Your task to perform on an android device: turn off location history Image 0: 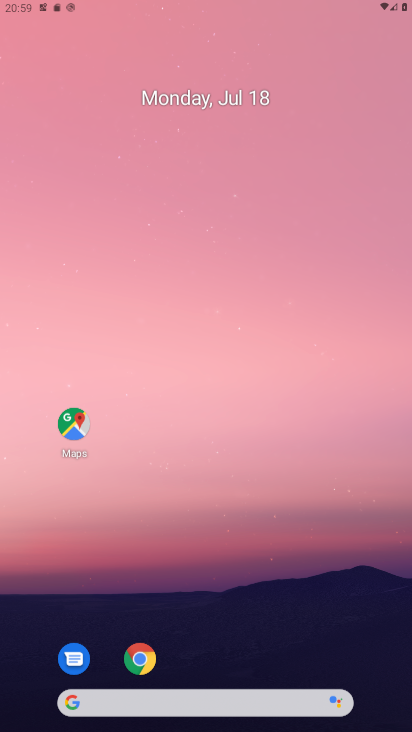
Step 0: drag from (218, 102) to (260, 229)
Your task to perform on an android device: turn off location history Image 1: 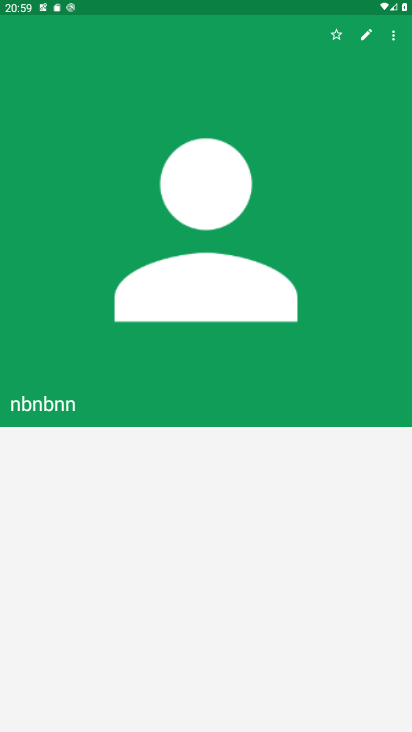
Step 1: drag from (174, 695) to (123, 265)
Your task to perform on an android device: turn off location history Image 2: 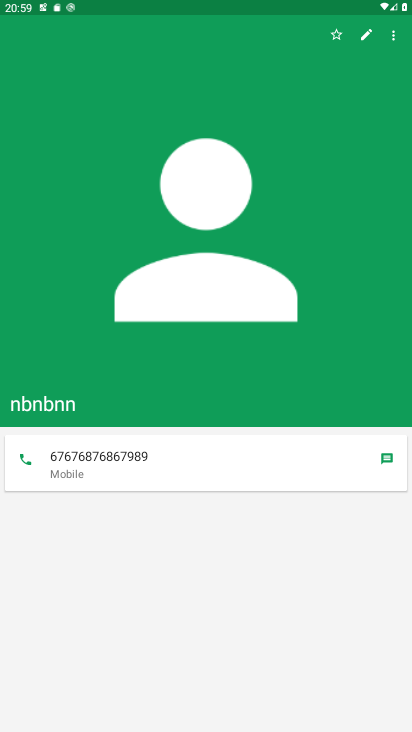
Step 2: press back button
Your task to perform on an android device: turn off location history Image 3: 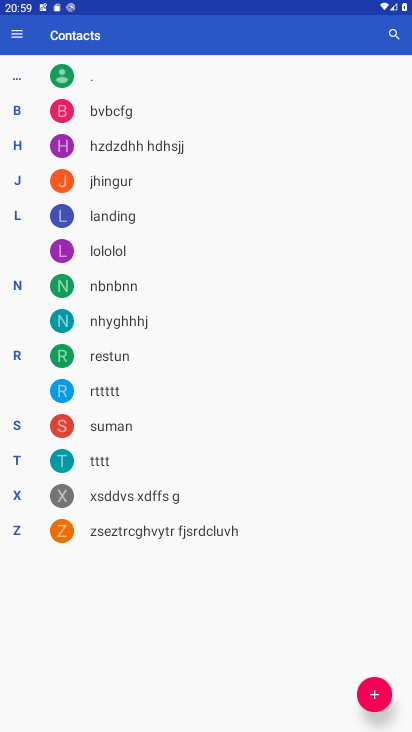
Step 3: press home button
Your task to perform on an android device: turn off location history Image 4: 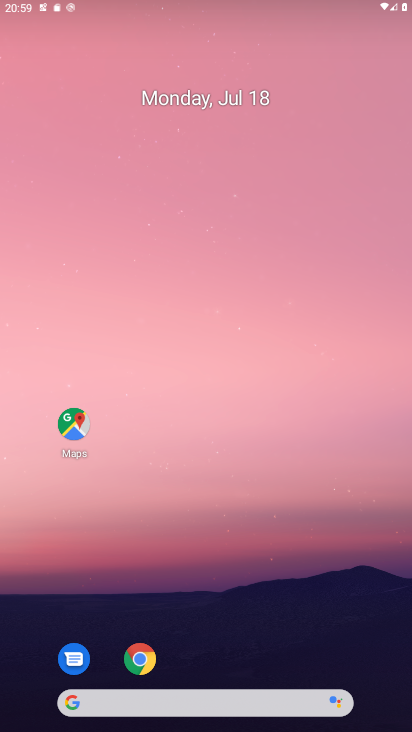
Step 4: drag from (204, 389) to (164, 40)
Your task to perform on an android device: turn off location history Image 5: 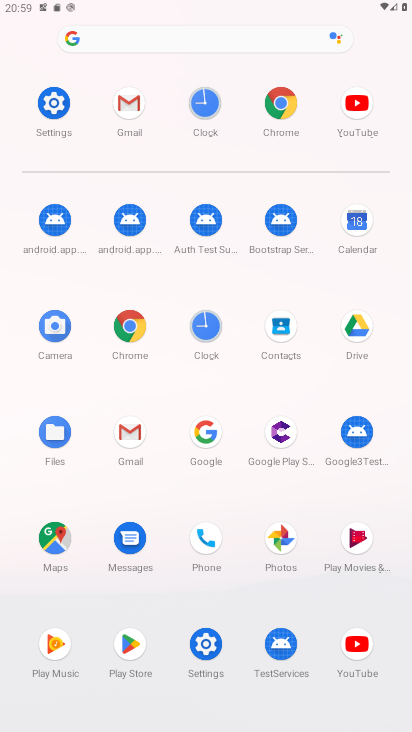
Step 5: click (50, 100)
Your task to perform on an android device: turn off location history Image 6: 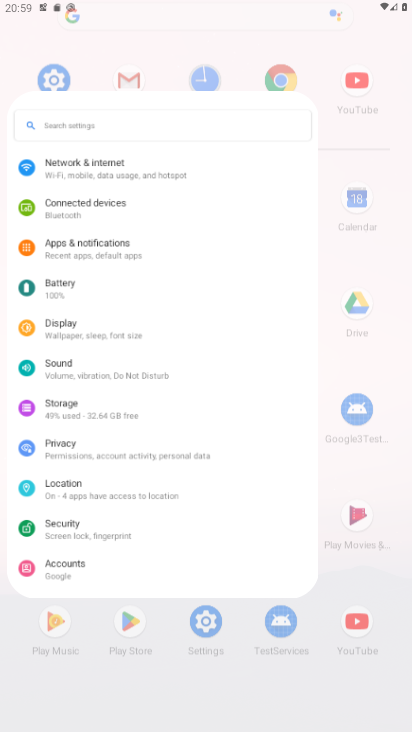
Step 6: click (30, 118)
Your task to perform on an android device: turn off location history Image 7: 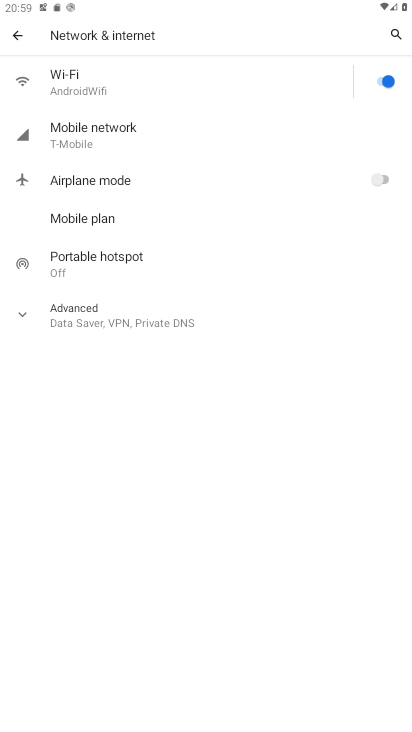
Step 7: click (13, 36)
Your task to perform on an android device: turn off location history Image 8: 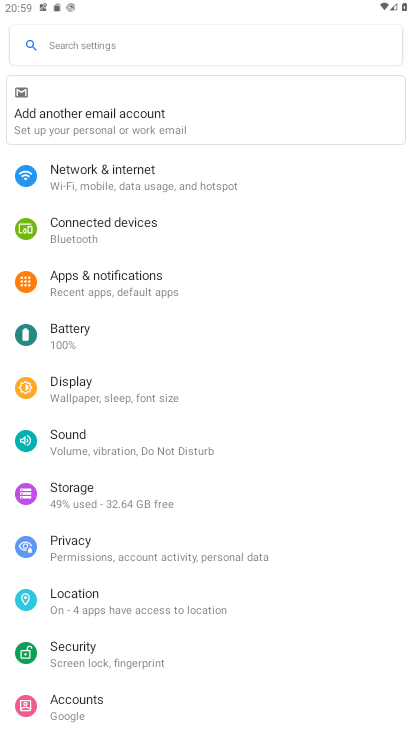
Step 8: click (84, 596)
Your task to perform on an android device: turn off location history Image 9: 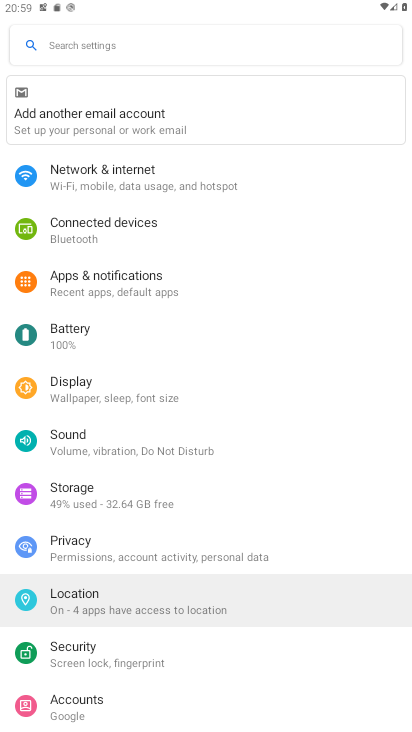
Step 9: click (88, 595)
Your task to perform on an android device: turn off location history Image 10: 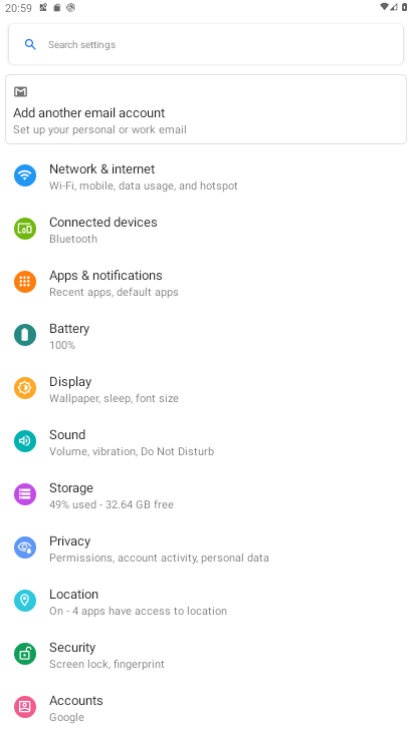
Step 10: click (90, 594)
Your task to perform on an android device: turn off location history Image 11: 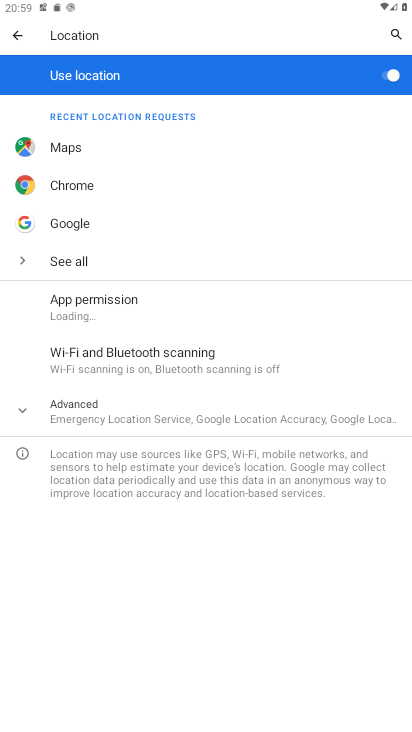
Step 11: click (69, 399)
Your task to perform on an android device: turn off location history Image 12: 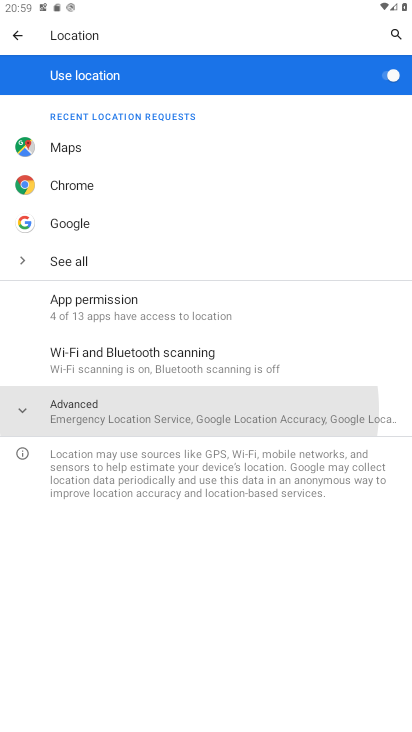
Step 12: click (75, 410)
Your task to perform on an android device: turn off location history Image 13: 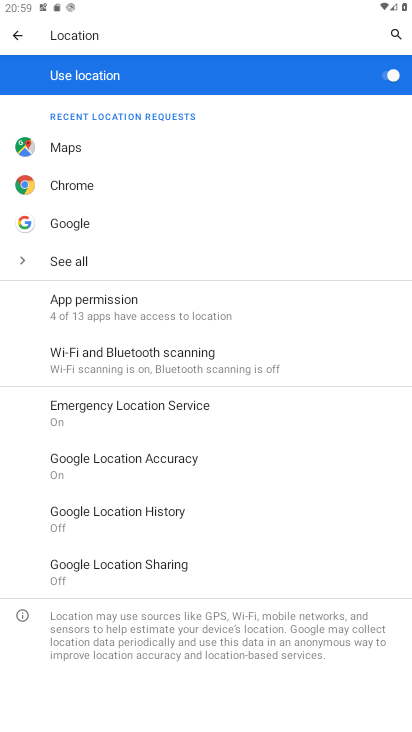
Step 13: click (117, 508)
Your task to perform on an android device: turn off location history Image 14: 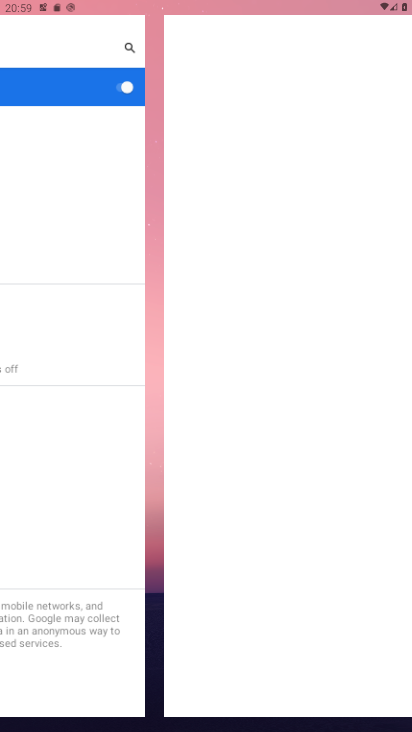
Step 14: click (117, 508)
Your task to perform on an android device: turn off location history Image 15: 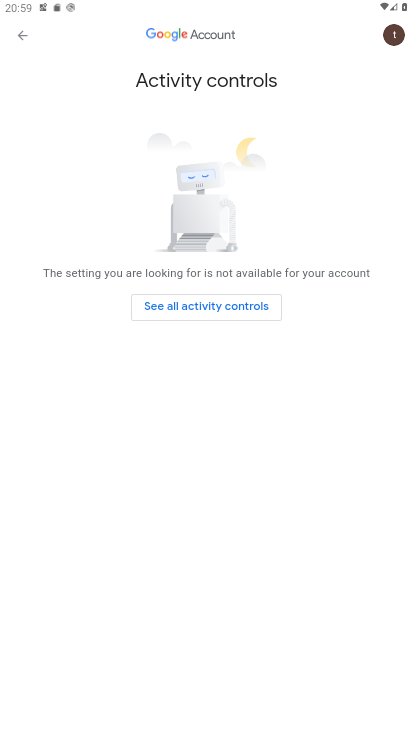
Step 15: task complete